Your task to perform on an android device: Open Google Chrome and click the shortcut for Amazon.com Image 0: 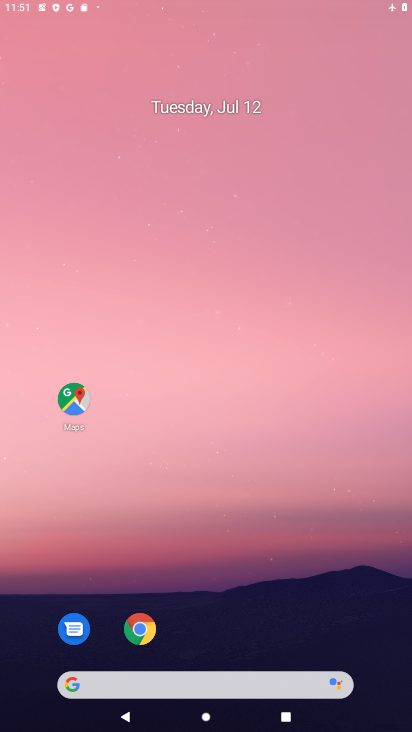
Step 0: drag from (198, 576) to (212, 356)
Your task to perform on an android device: Open Google Chrome and click the shortcut for Amazon.com Image 1: 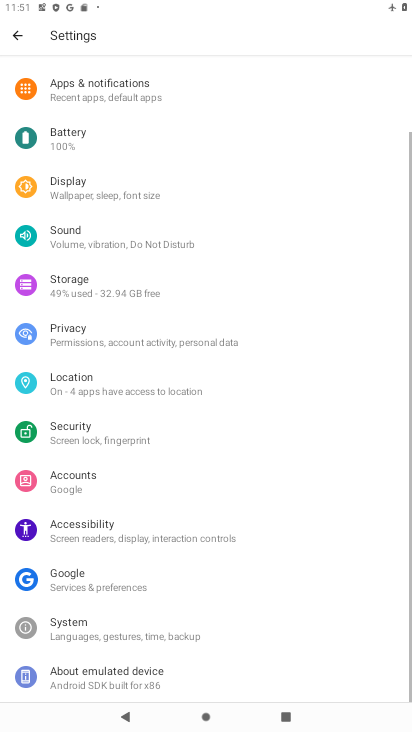
Step 1: press home button
Your task to perform on an android device: Open Google Chrome and click the shortcut for Amazon.com Image 2: 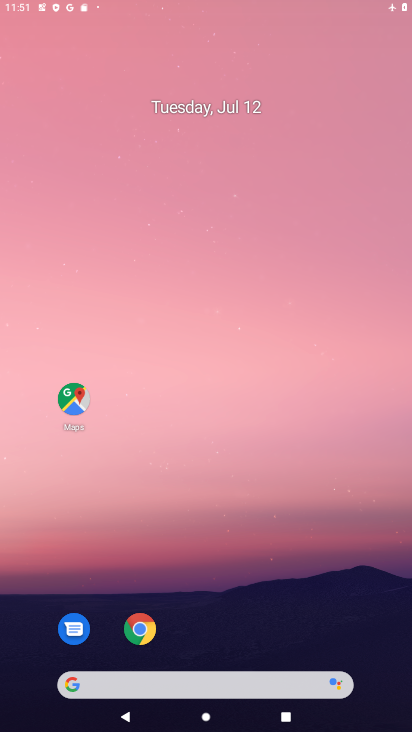
Step 2: drag from (253, 625) to (272, 307)
Your task to perform on an android device: Open Google Chrome and click the shortcut for Amazon.com Image 3: 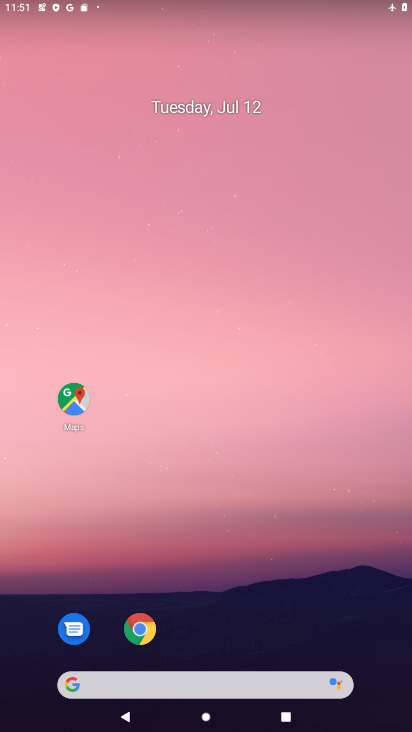
Step 3: drag from (191, 583) to (265, 230)
Your task to perform on an android device: Open Google Chrome and click the shortcut for Amazon.com Image 4: 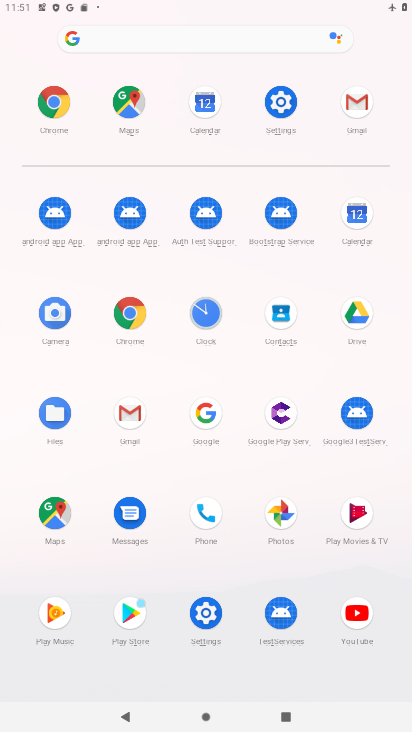
Step 4: click (47, 87)
Your task to perform on an android device: Open Google Chrome and click the shortcut for Amazon.com Image 5: 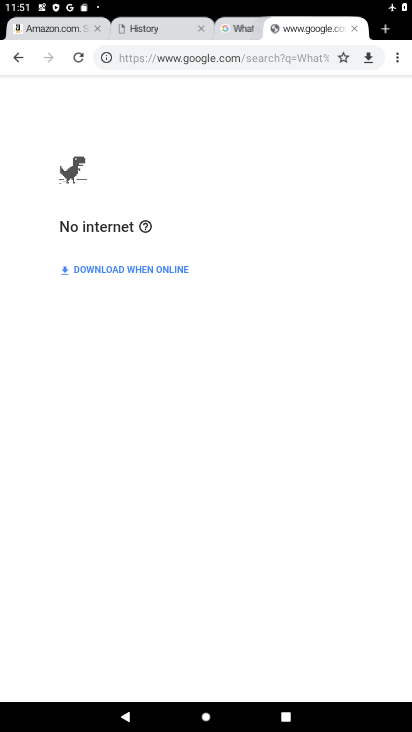
Step 5: click (398, 58)
Your task to perform on an android device: Open Google Chrome and click the shortcut for Amazon.com Image 6: 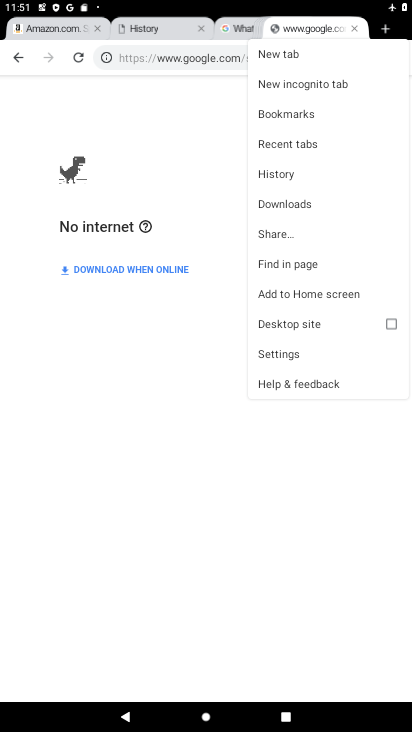
Step 6: click (274, 55)
Your task to perform on an android device: Open Google Chrome and click the shortcut for Amazon.com Image 7: 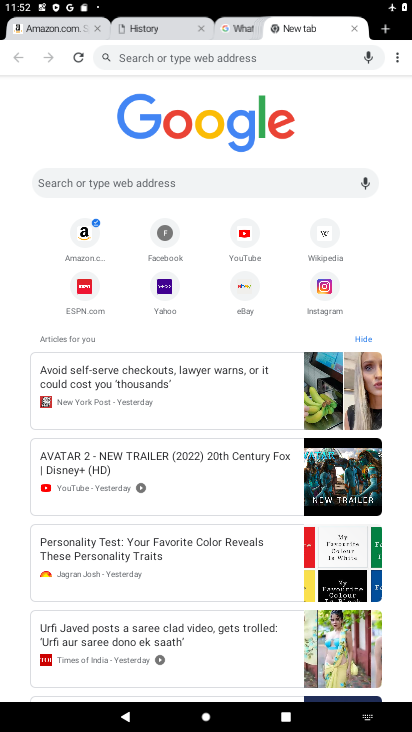
Step 7: click (82, 221)
Your task to perform on an android device: Open Google Chrome and click the shortcut for Amazon.com Image 8: 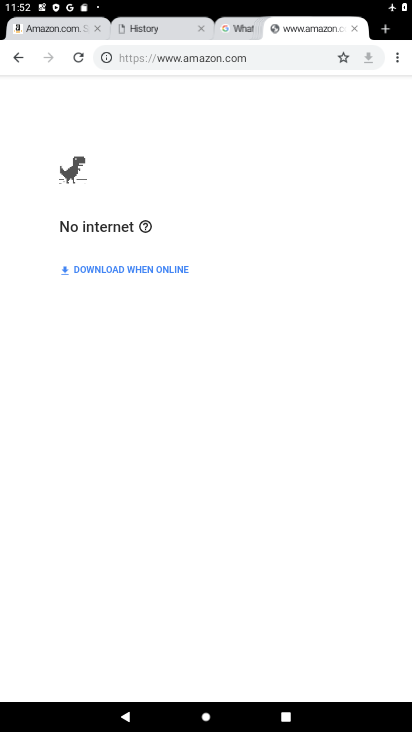
Step 8: task complete